Your task to perform on an android device: Open calendar and show me the first week of next month Image 0: 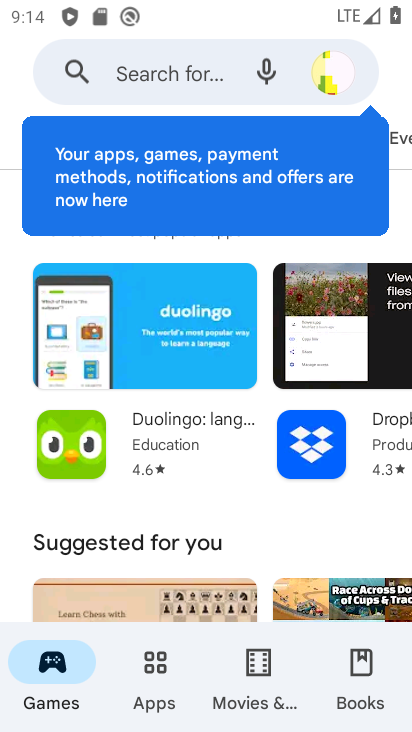
Step 0: press back button
Your task to perform on an android device: Open calendar and show me the first week of next month Image 1: 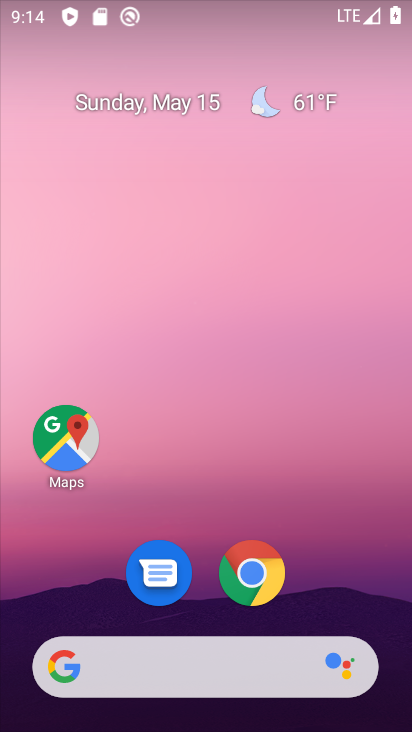
Step 1: drag from (14, 585) to (229, 133)
Your task to perform on an android device: Open calendar and show me the first week of next month Image 2: 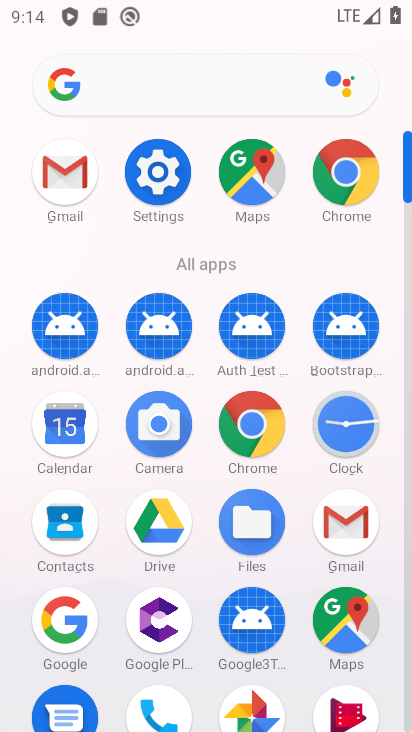
Step 2: click (53, 457)
Your task to perform on an android device: Open calendar and show me the first week of next month Image 3: 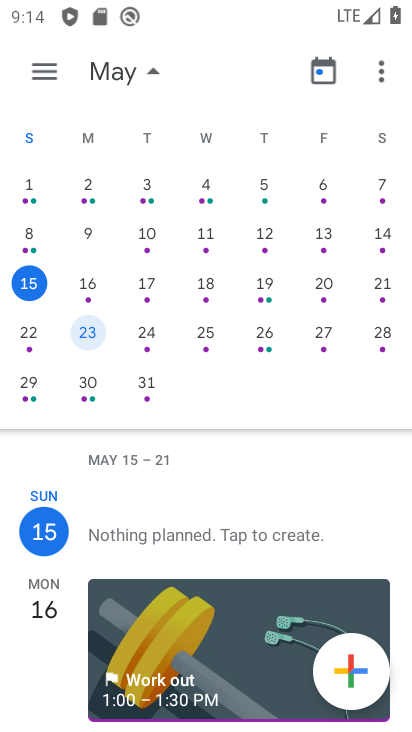
Step 3: task complete